Your task to perform on an android device: check the backup settings in the google photos Image 0: 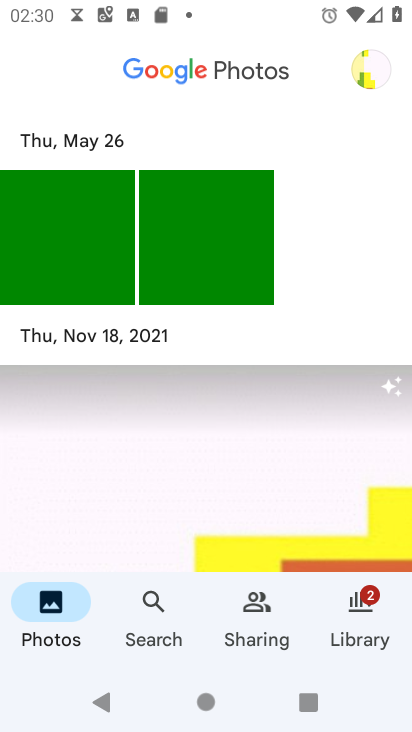
Step 0: press home button
Your task to perform on an android device: check the backup settings in the google photos Image 1: 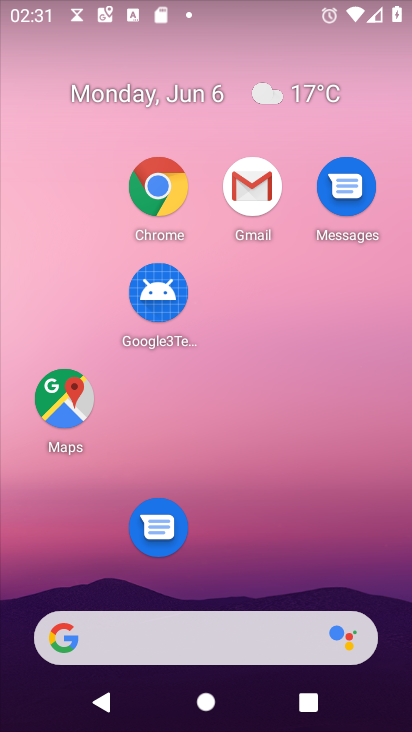
Step 1: click (315, 501)
Your task to perform on an android device: check the backup settings in the google photos Image 2: 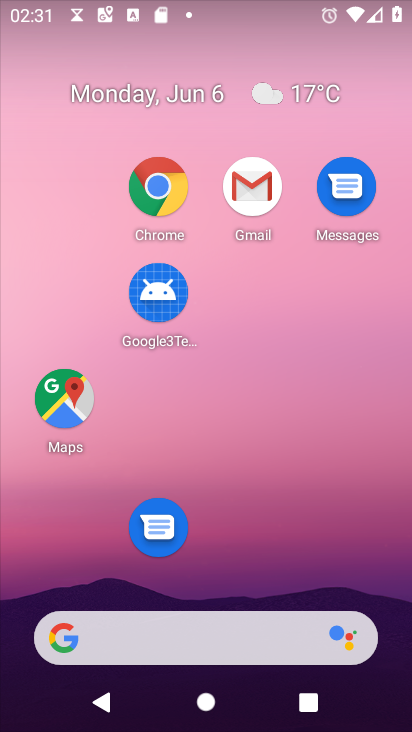
Step 2: drag from (315, 501) to (357, 225)
Your task to perform on an android device: check the backup settings in the google photos Image 3: 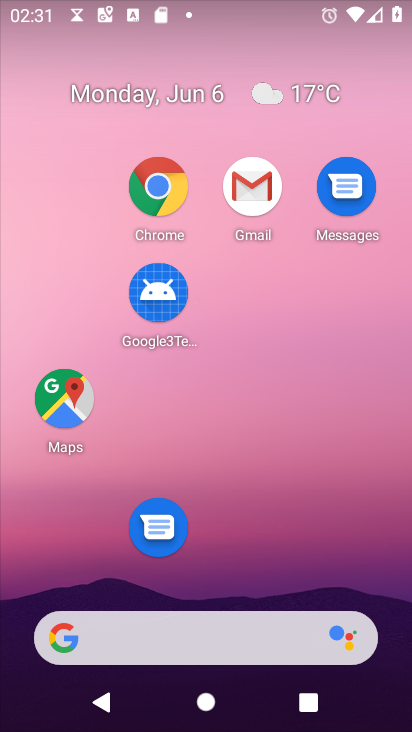
Step 3: drag from (363, 553) to (396, 243)
Your task to perform on an android device: check the backup settings in the google photos Image 4: 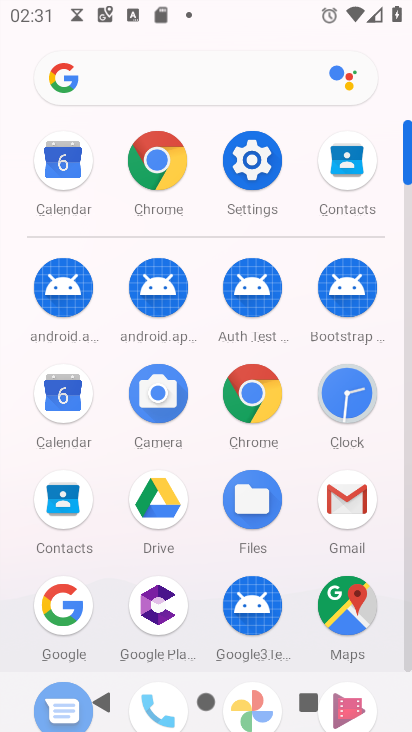
Step 4: click (402, 539)
Your task to perform on an android device: check the backup settings in the google photos Image 5: 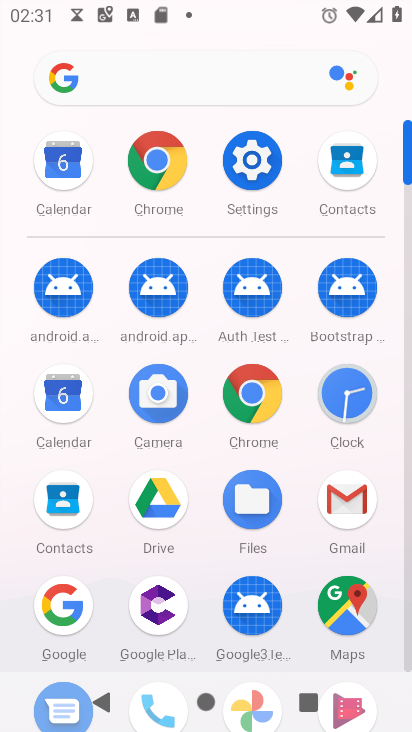
Step 5: click (408, 521)
Your task to perform on an android device: check the backup settings in the google photos Image 6: 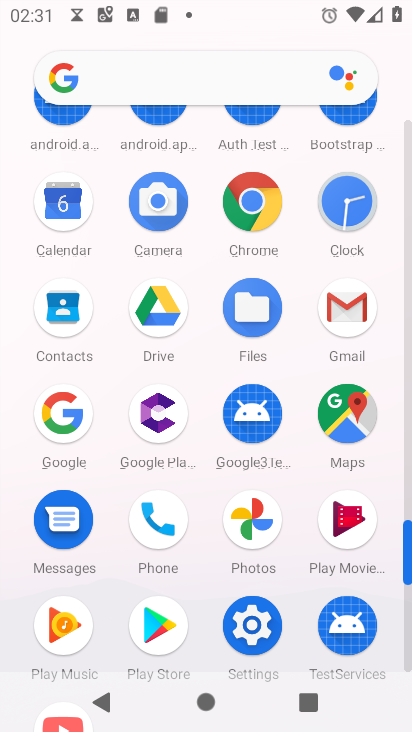
Step 6: click (266, 513)
Your task to perform on an android device: check the backup settings in the google photos Image 7: 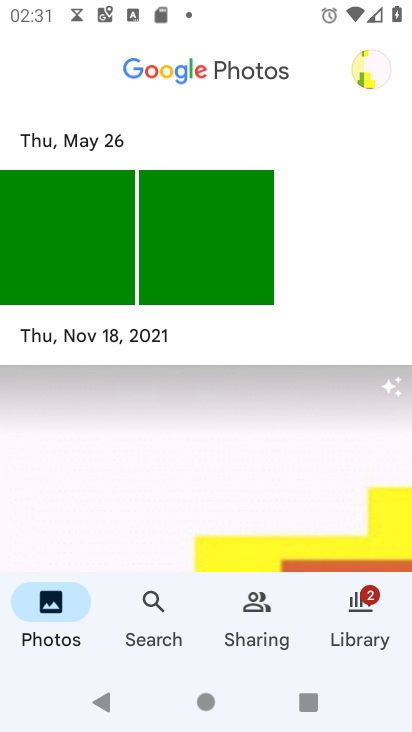
Step 7: click (371, 57)
Your task to perform on an android device: check the backup settings in the google photos Image 8: 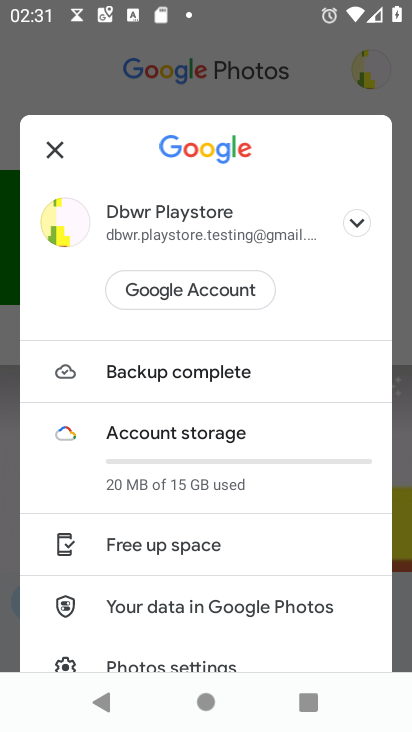
Step 8: click (161, 367)
Your task to perform on an android device: check the backup settings in the google photos Image 9: 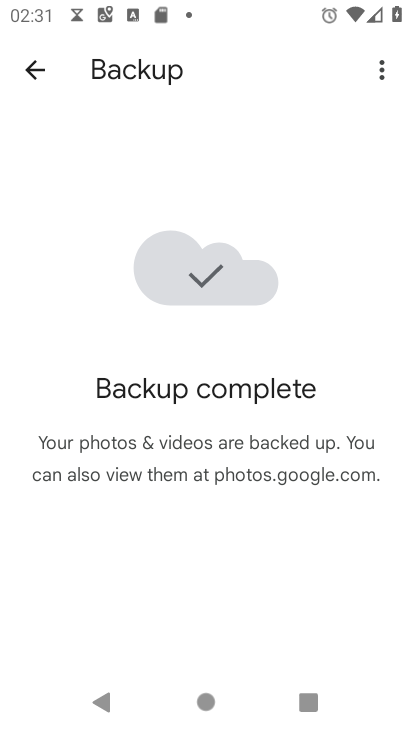
Step 9: click (382, 70)
Your task to perform on an android device: check the backup settings in the google photos Image 10: 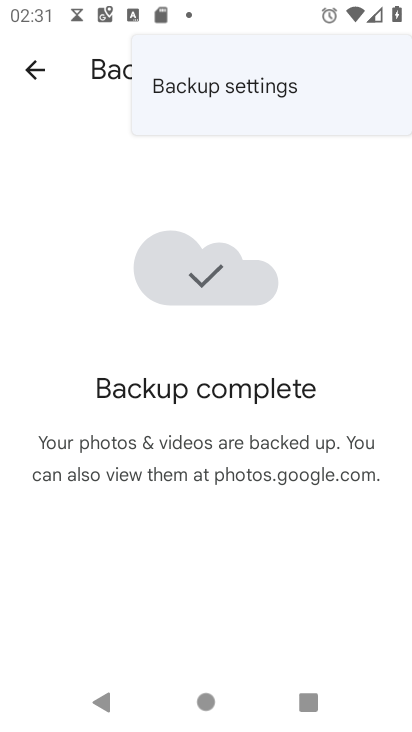
Step 10: click (194, 74)
Your task to perform on an android device: check the backup settings in the google photos Image 11: 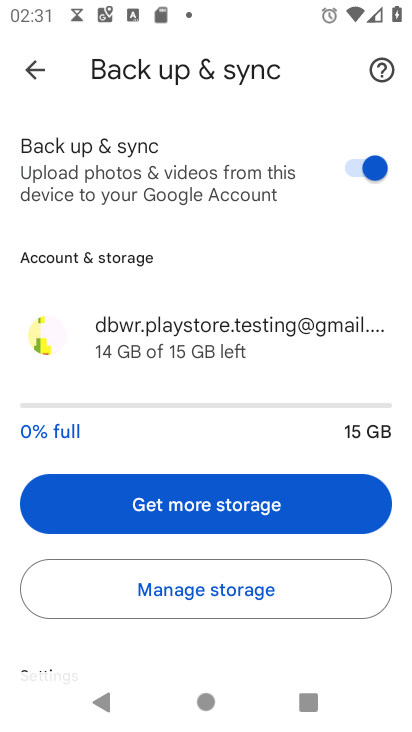
Step 11: click (382, 170)
Your task to perform on an android device: check the backup settings in the google photos Image 12: 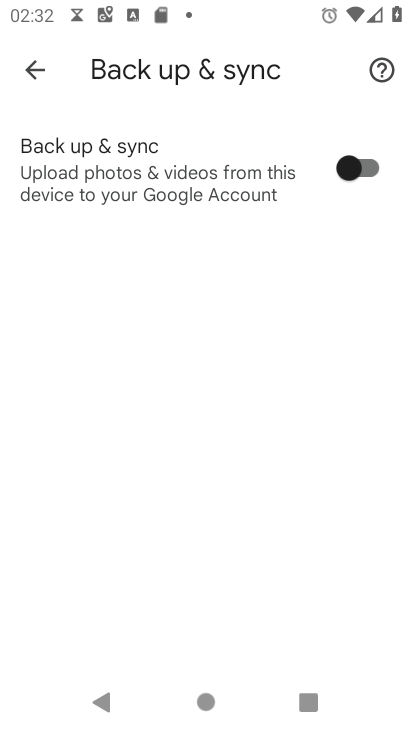
Step 12: task complete